Your task to perform on an android device: turn on the 12-hour format for clock Image 0: 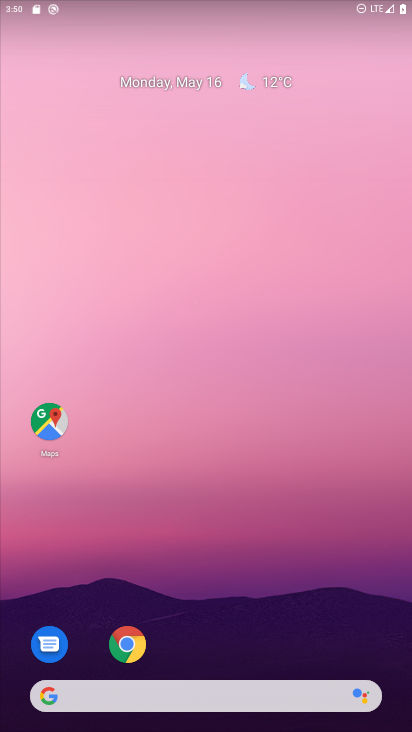
Step 0: drag from (221, 317) to (205, 62)
Your task to perform on an android device: turn on the 12-hour format for clock Image 1: 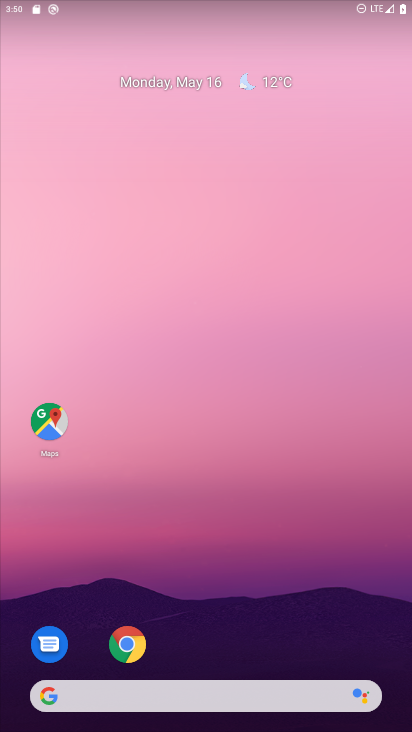
Step 1: drag from (230, 525) to (178, 1)
Your task to perform on an android device: turn on the 12-hour format for clock Image 2: 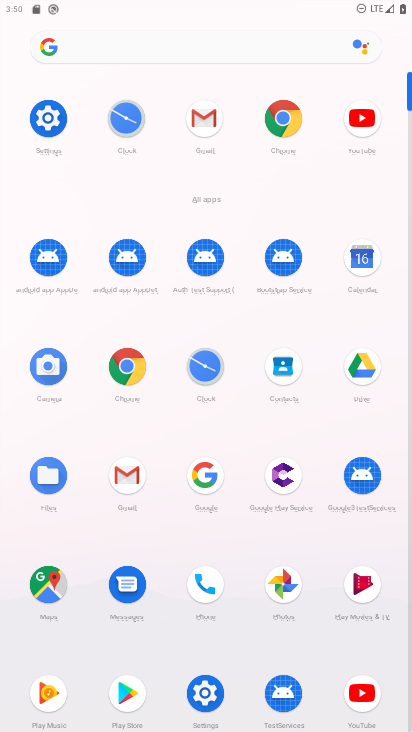
Step 2: click (124, 129)
Your task to perform on an android device: turn on the 12-hour format for clock Image 3: 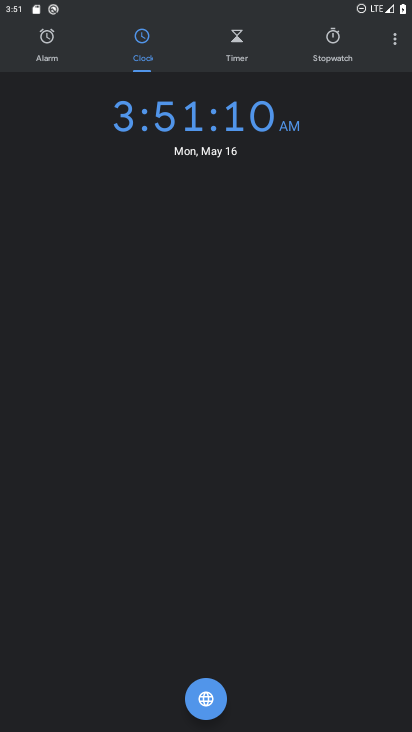
Step 3: click (398, 47)
Your task to perform on an android device: turn on the 12-hour format for clock Image 4: 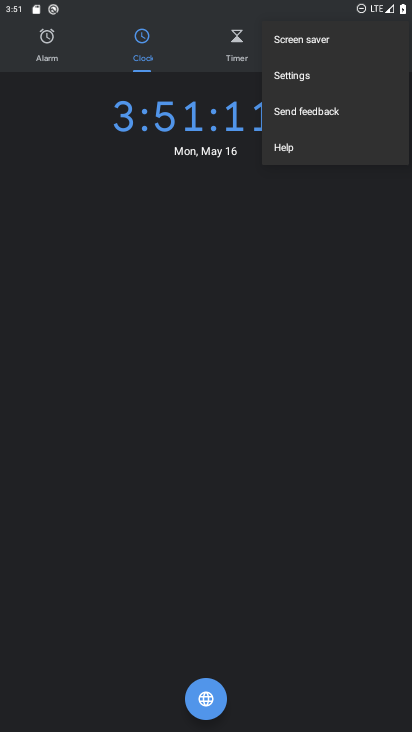
Step 4: click (292, 83)
Your task to perform on an android device: turn on the 12-hour format for clock Image 5: 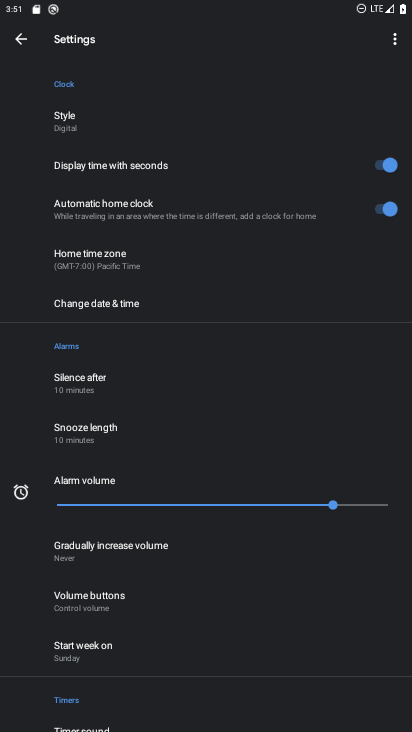
Step 5: click (152, 304)
Your task to perform on an android device: turn on the 12-hour format for clock Image 6: 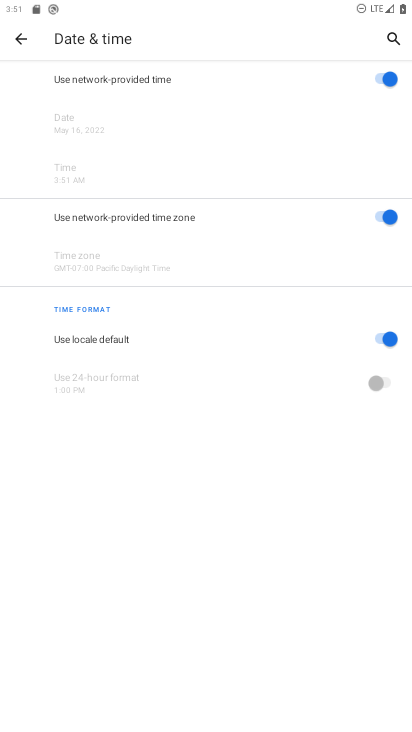
Step 6: task complete